Your task to perform on an android device: Check the weather Image 0: 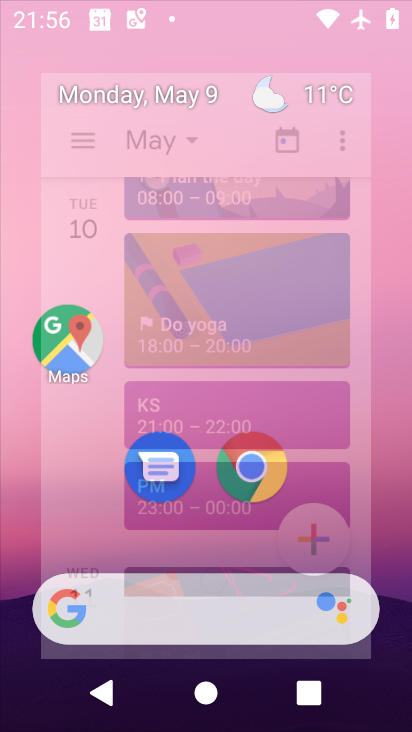
Step 0: drag from (329, 499) to (336, 235)
Your task to perform on an android device: Check the weather Image 1: 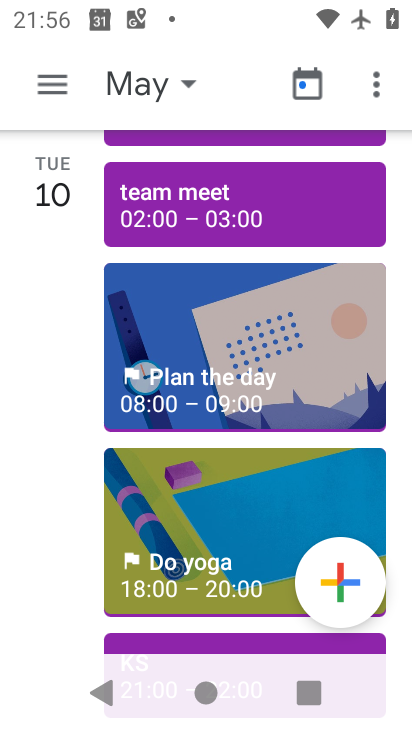
Step 1: press home button
Your task to perform on an android device: Check the weather Image 2: 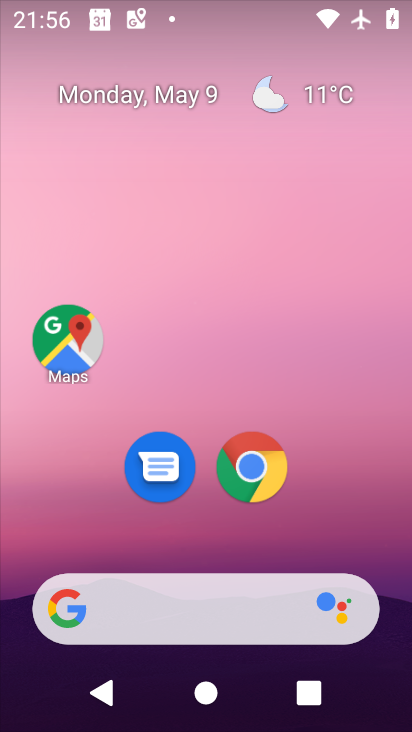
Step 2: drag from (393, 366) to (376, 161)
Your task to perform on an android device: Check the weather Image 3: 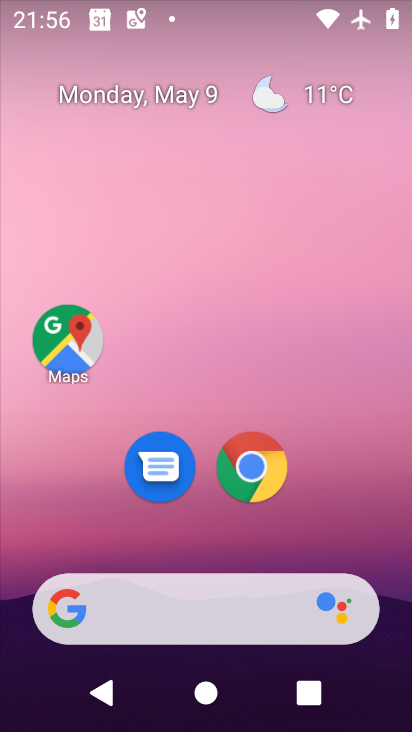
Step 3: drag from (276, 468) to (250, 145)
Your task to perform on an android device: Check the weather Image 4: 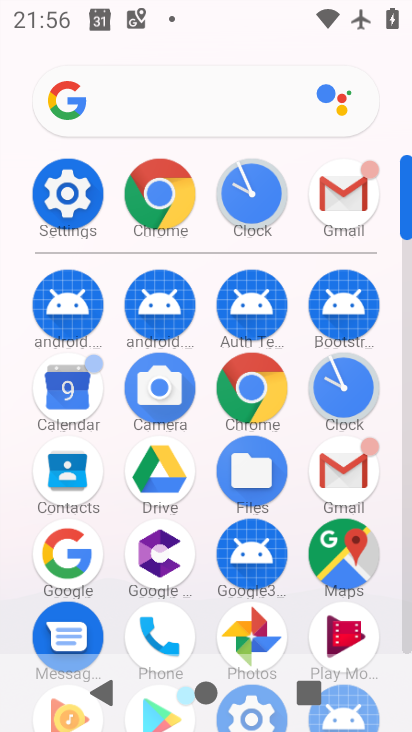
Step 4: click (163, 192)
Your task to perform on an android device: Check the weather Image 5: 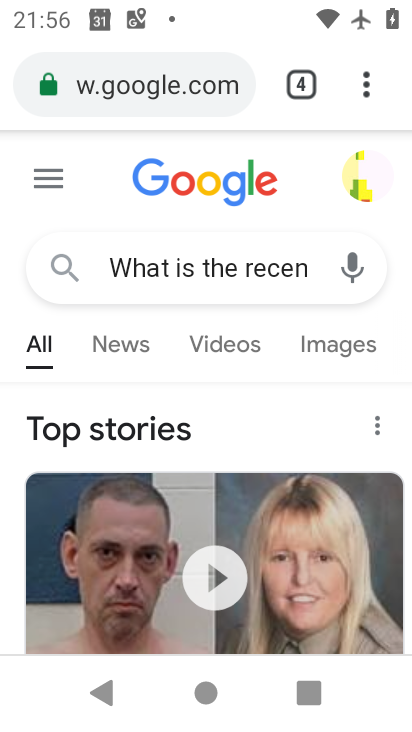
Step 5: click (356, 85)
Your task to perform on an android device: Check the weather Image 6: 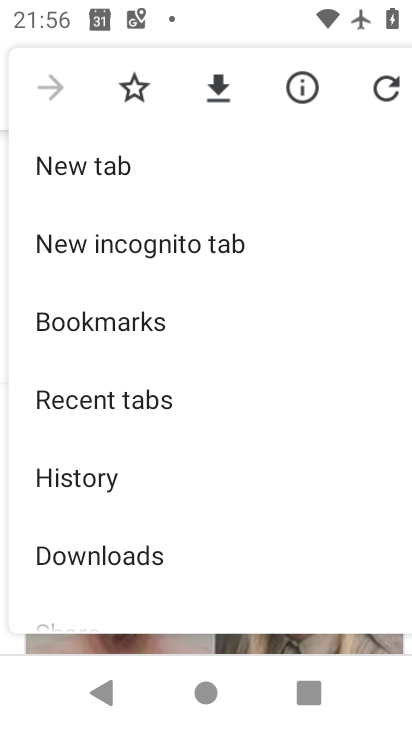
Step 6: click (98, 162)
Your task to perform on an android device: Check the weather Image 7: 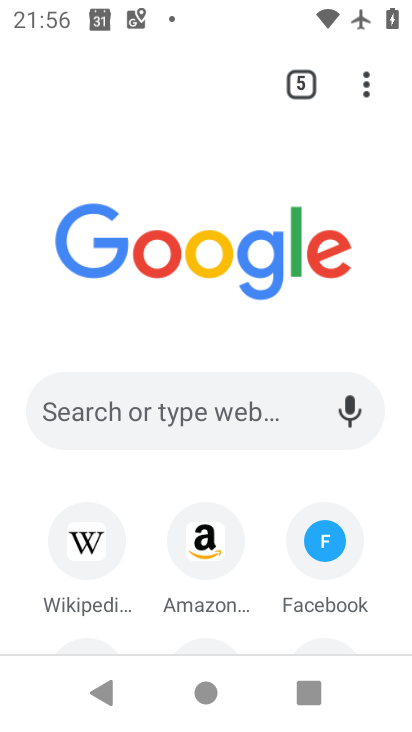
Step 7: click (280, 404)
Your task to perform on an android device: Check the weather Image 8: 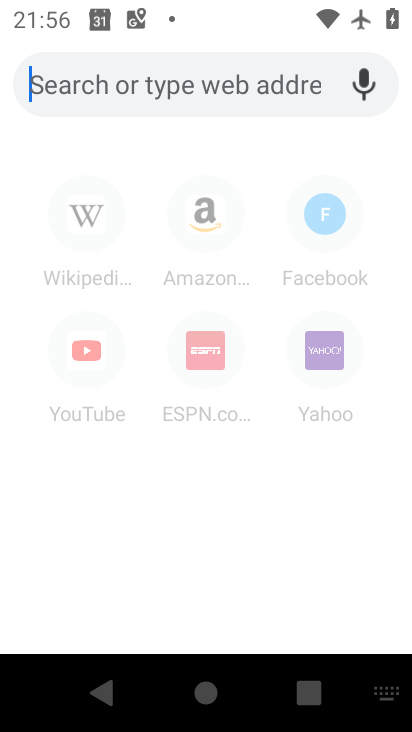
Step 8: type "Check the weather"
Your task to perform on an android device: Check the weather Image 9: 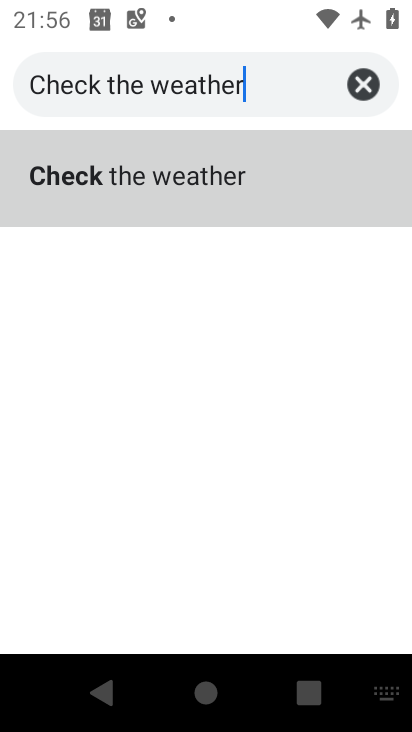
Step 9: click (145, 176)
Your task to perform on an android device: Check the weather Image 10: 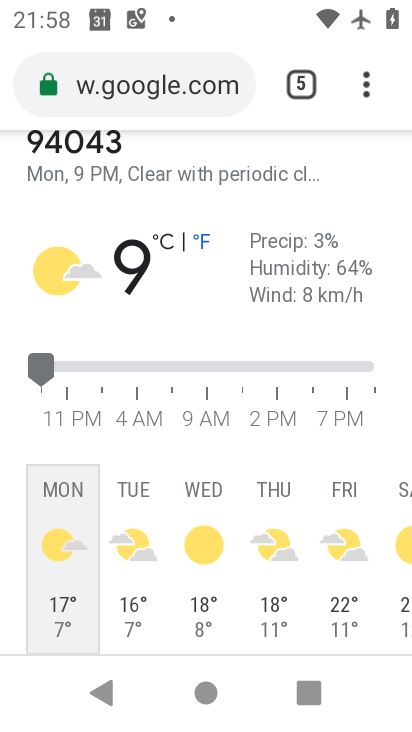
Step 10: task complete